Your task to perform on an android device: uninstall "Spotify: Music and Podcasts" Image 0: 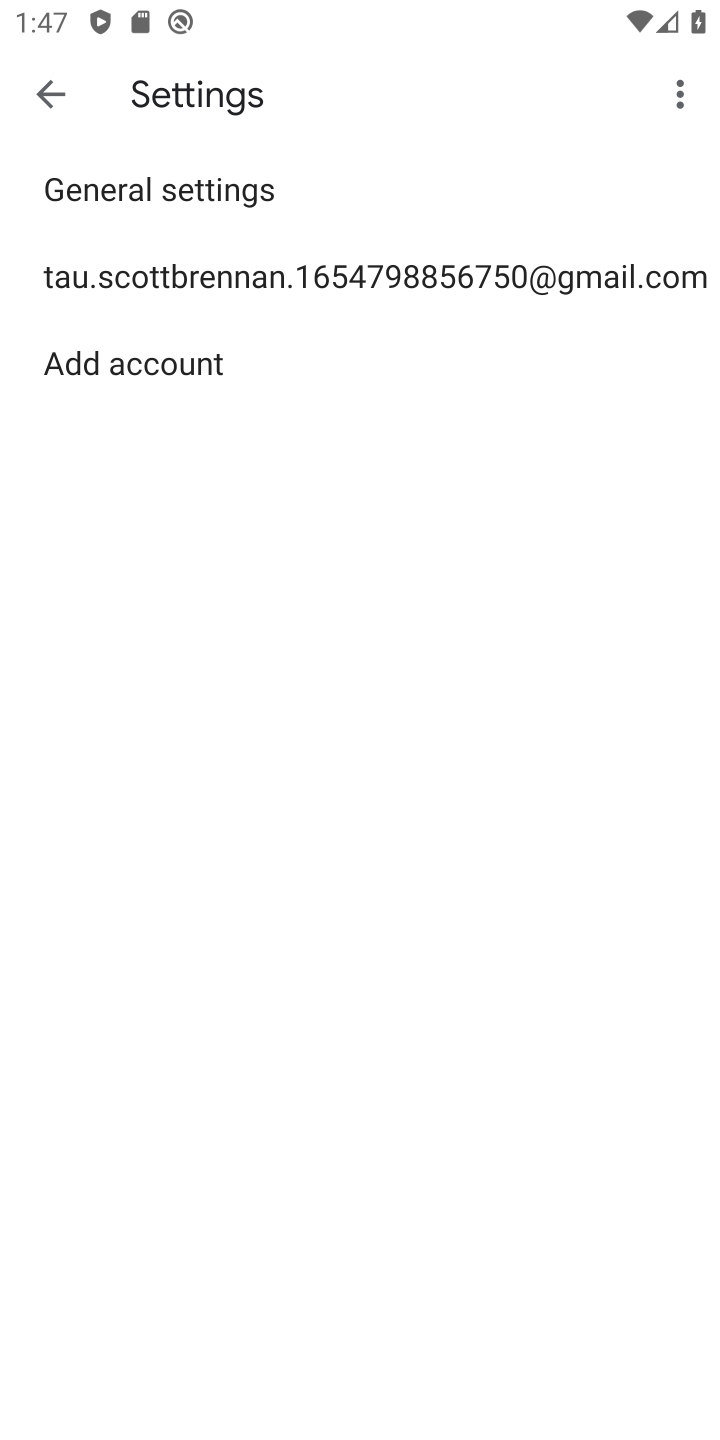
Step 0: press back button
Your task to perform on an android device: uninstall "Spotify: Music and Podcasts" Image 1: 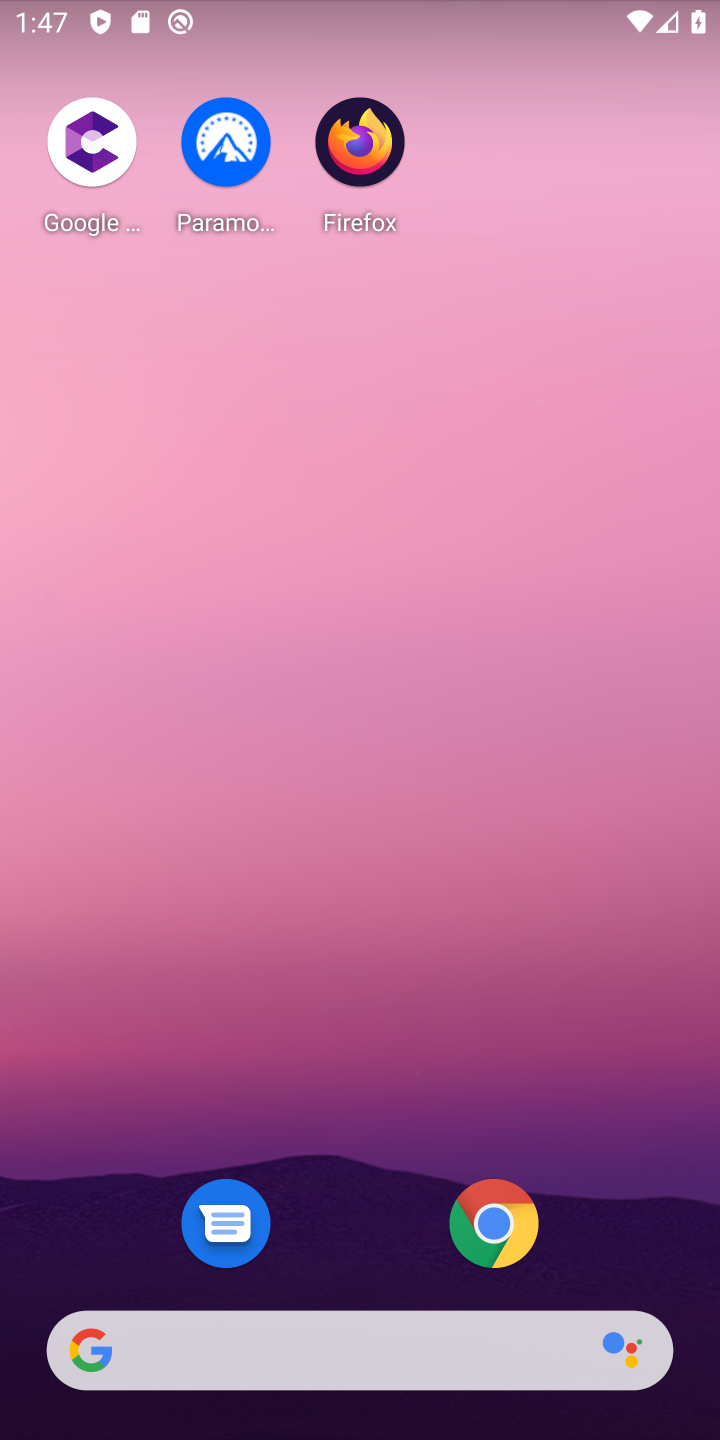
Step 1: drag from (375, 1035) to (481, 229)
Your task to perform on an android device: uninstall "Spotify: Music and Podcasts" Image 2: 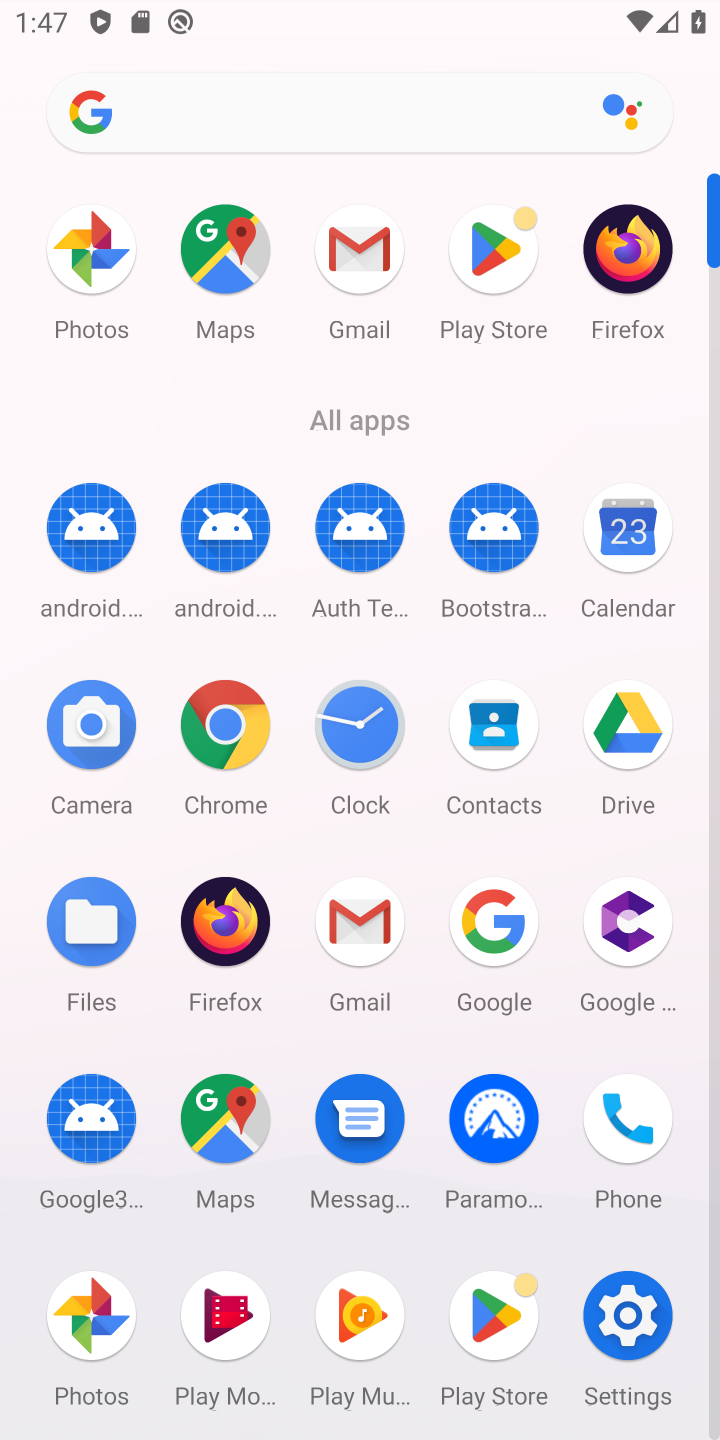
Step 2: click (504, 258)
Your task to perform on an android device: uninstall "Spotify: Music and Podcasts" Image 3: 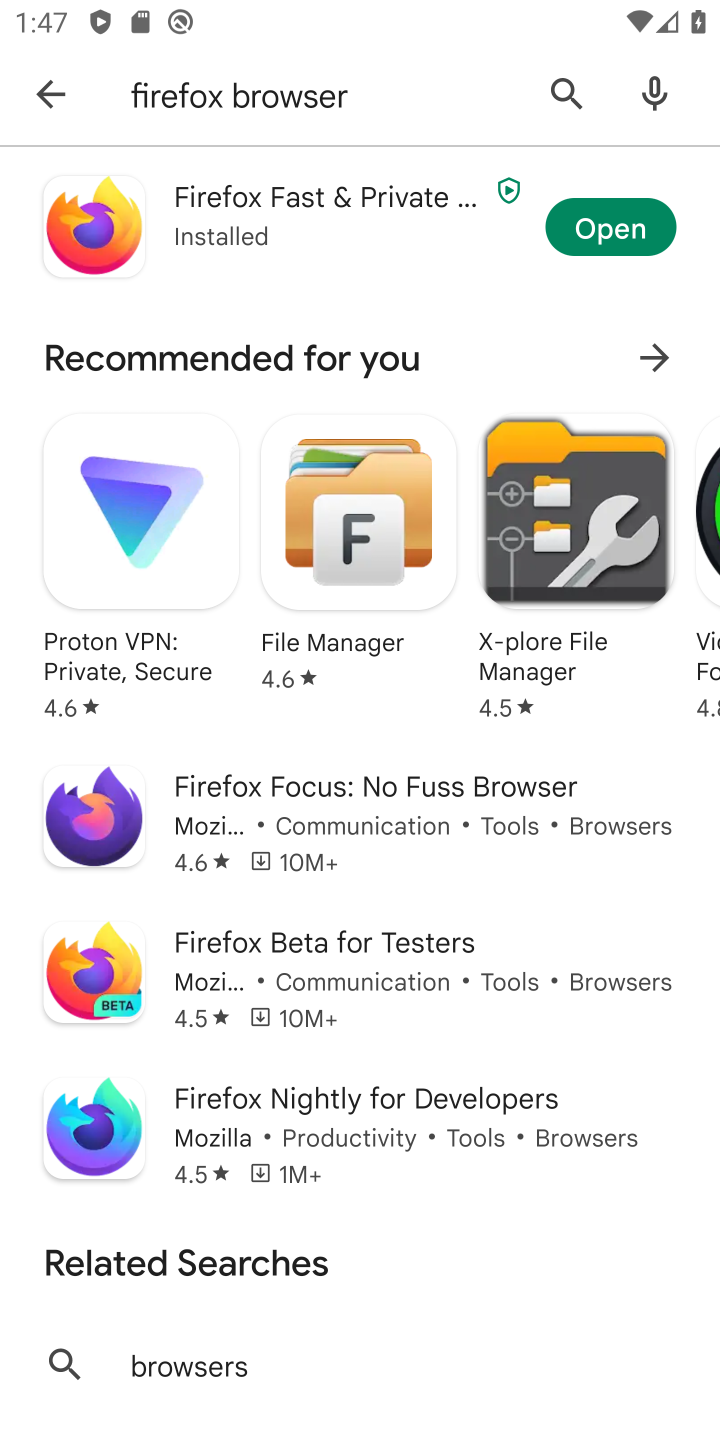
Step 3: click (560, 71)
Your task to perform on an android device: uninstall "Spotify: Music and Podcasts" Image 4: 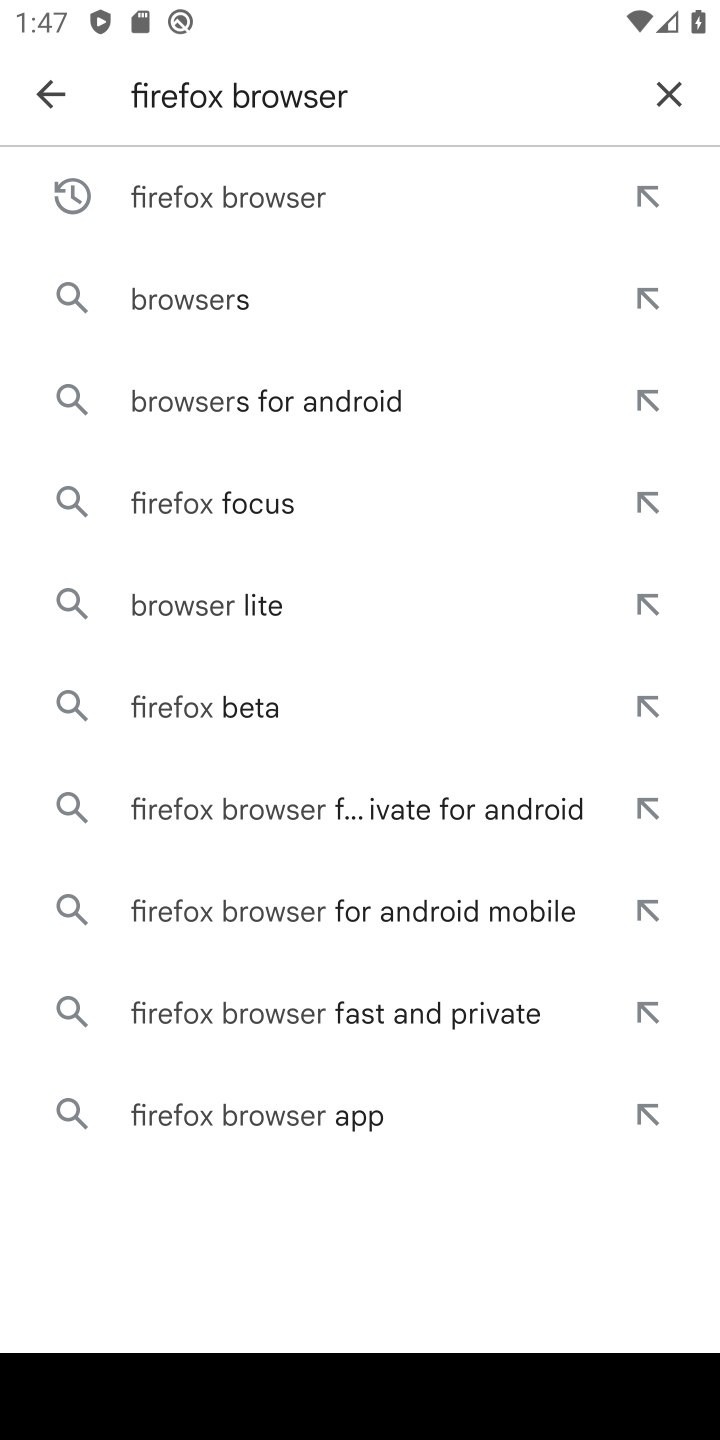
Step 4: click (674, 89)
Your task to perform on an android device: uninstall "Spotify: Music and Podcasts" Image 5: 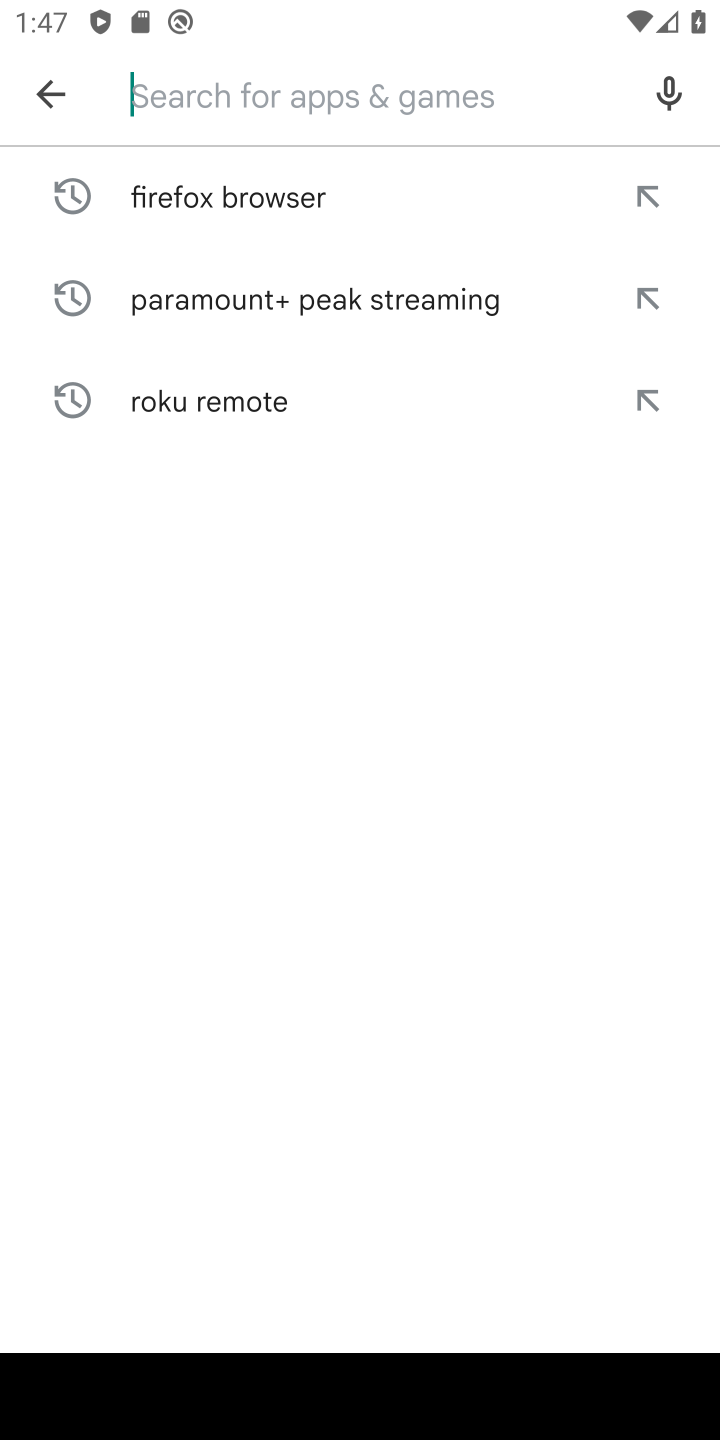
Step 5: click (251, 114)
Your task to perform on an android device: uninstall "Spotify: Music and Podcasts" Image 6: 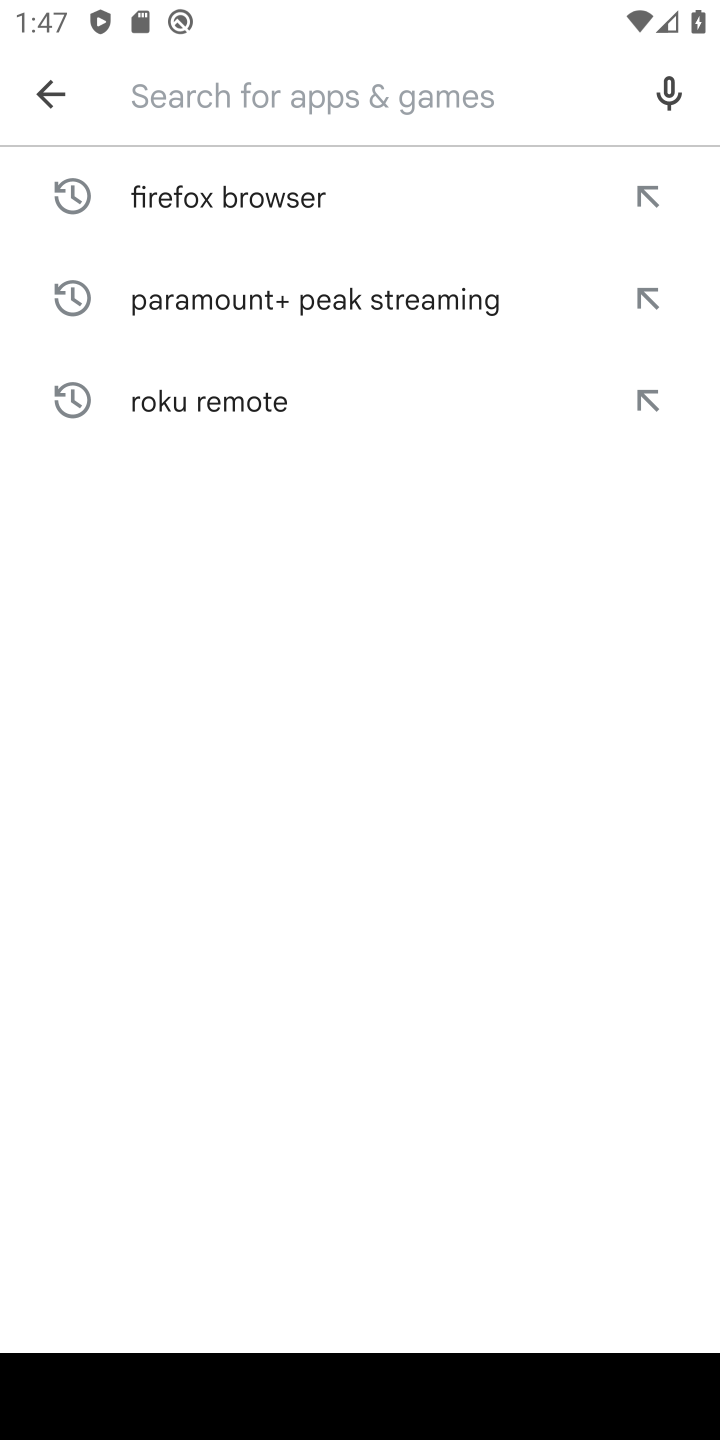
Step 6: click (198, 53)
Your task to perform on an android device: uninstall "Spotify: Music and Podcasts" Image 7: 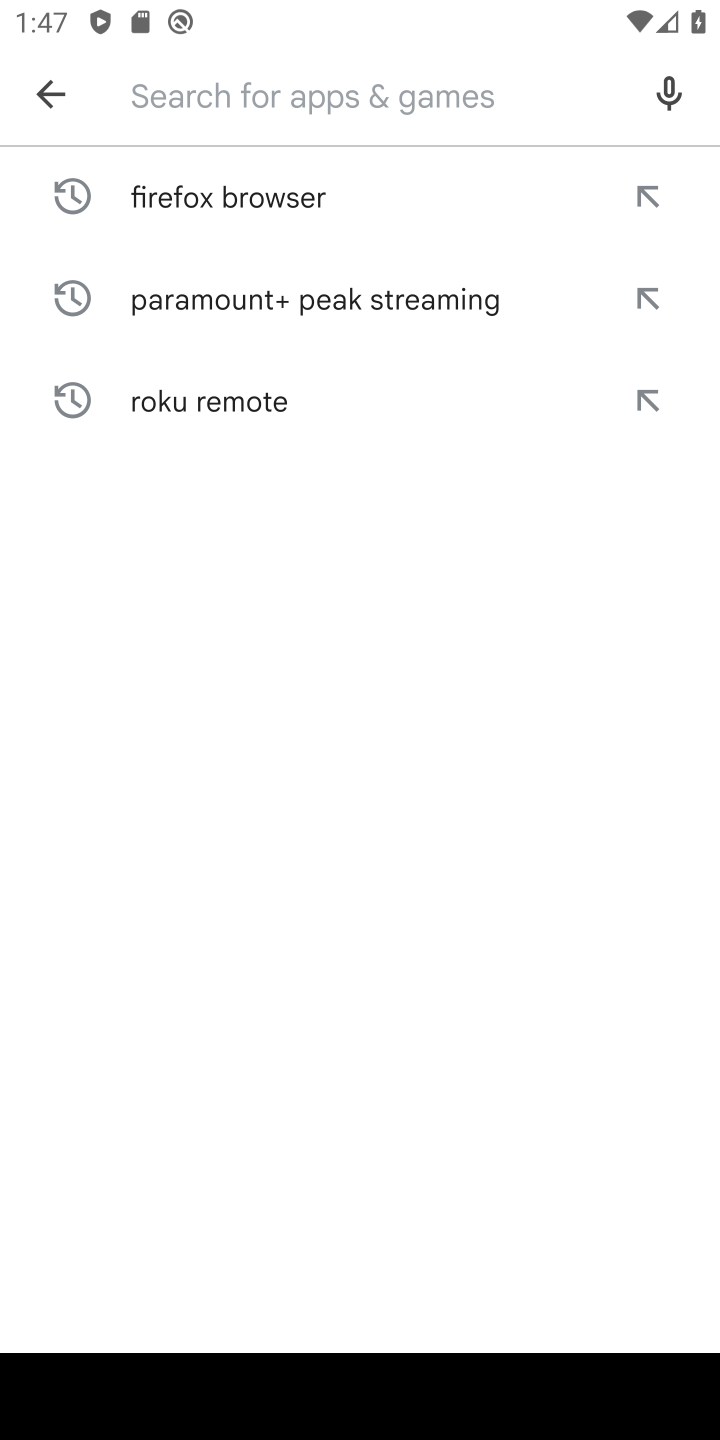
Step 7: type "Spotify"
Your task to perform on an android device: uninstall "Spotify: Music and Podcasts" Image 8: 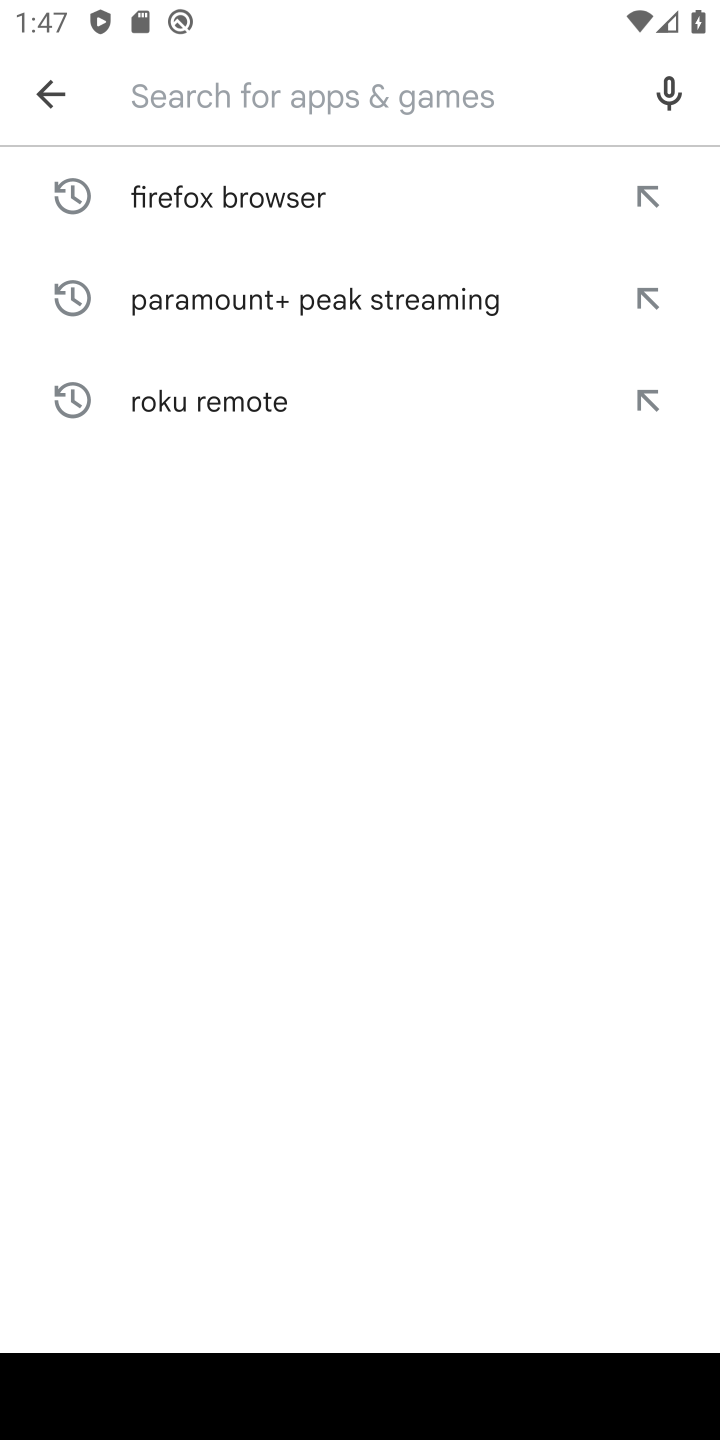
Step 8: click (462, 933)
Your task to perform on an android device: uninstall "Spotify: Music and Podcasts" Image 9: 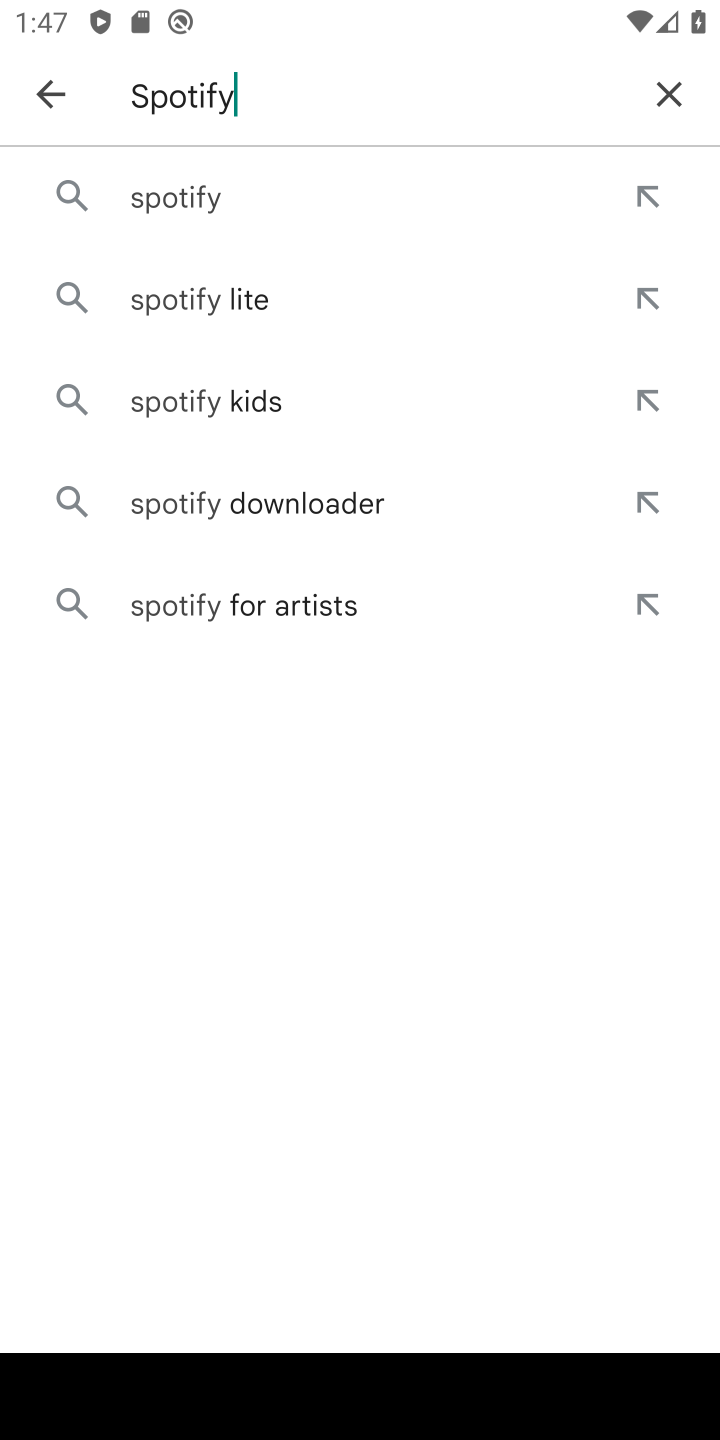
Step 9: click (202, 192)
Your task to perform on an android device: uninstall "Spotify: Music and Podcasts" Image 10: 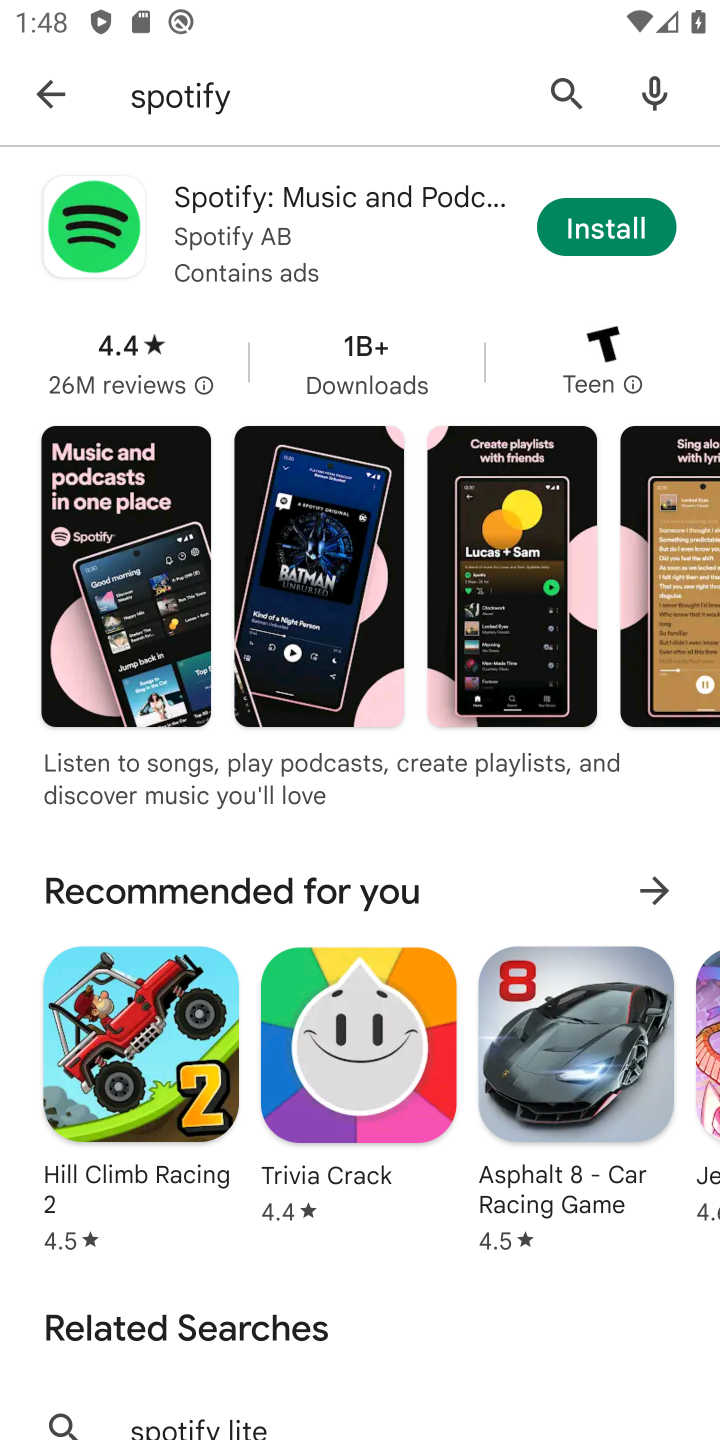
Step 10: task complete